Your task to perform on an android device: change the clock display to analog Image 0: 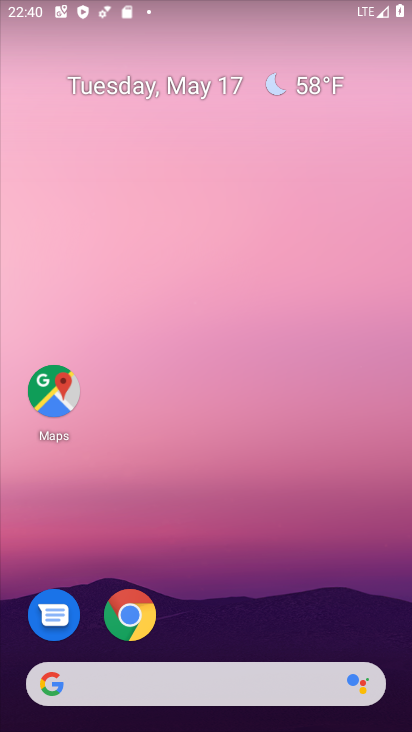
Step 0: drag from (249, 633) to (249, 216)
Your task to perform on an android device: change the clock display to analog Image 1: 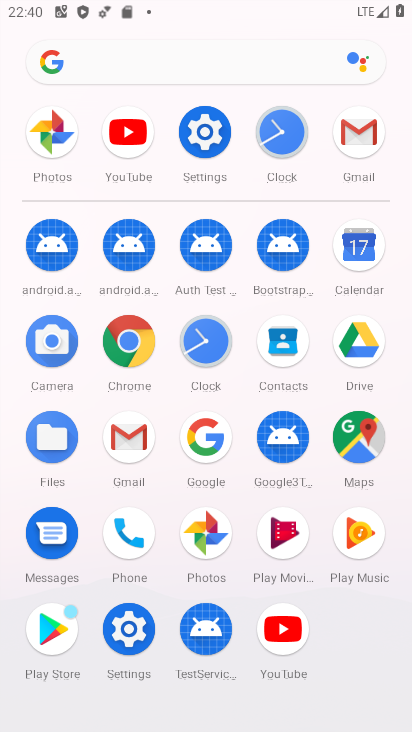
Step 1: click (267, 142)
Your task to perform on an android device: change the clock display to analog Image 2: 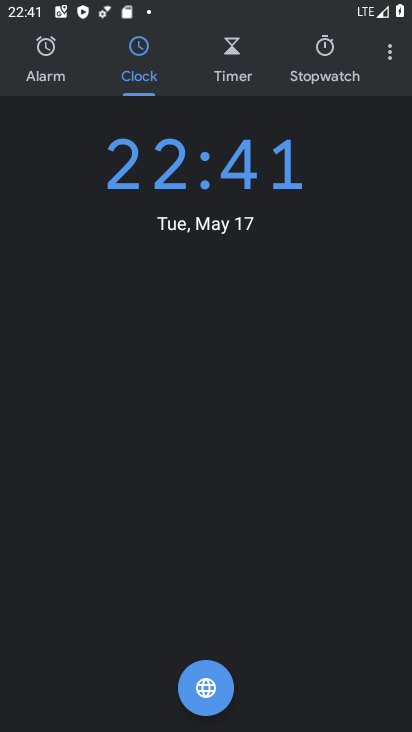
Step 2: click (384, 51)
Your task to perform on an android device: change the clock display to analog Image 3: 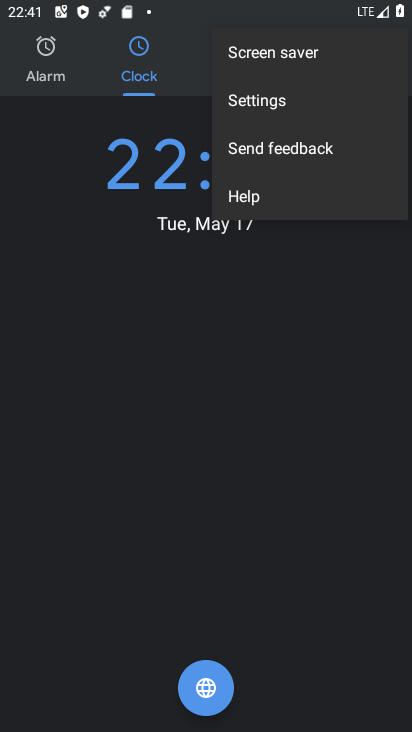
Step 3: click (261, 104)
Your task to perform on an android device: change the clock display to analog Image 4: 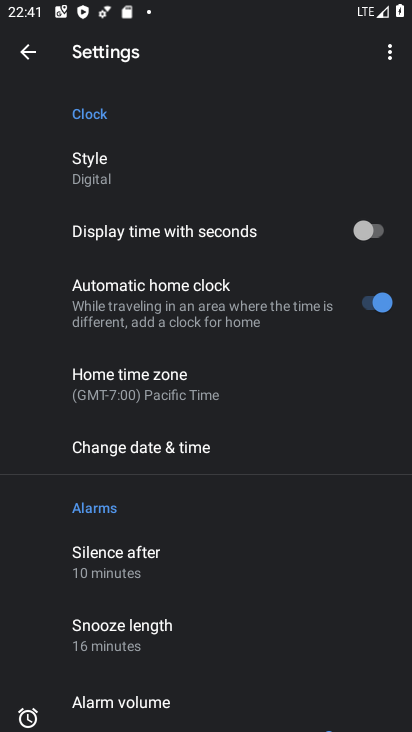
Step 4: click (76, 164)
Your task to perform on an android device: change the clock display to analog Image 5: 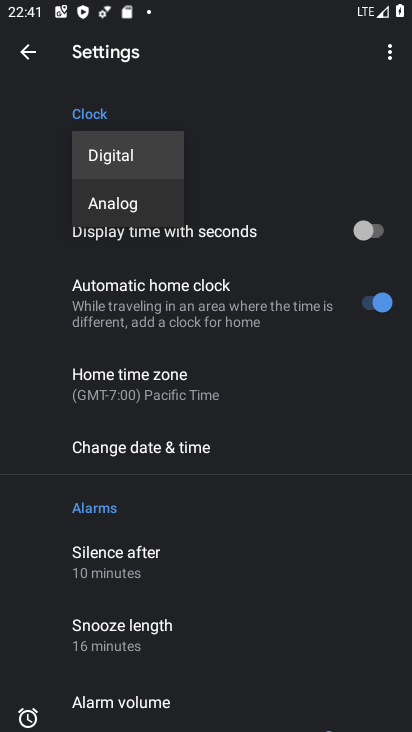
Step 5: click (95, 190)
Your task to perform on an android device: change the clock display to analog Image 6: 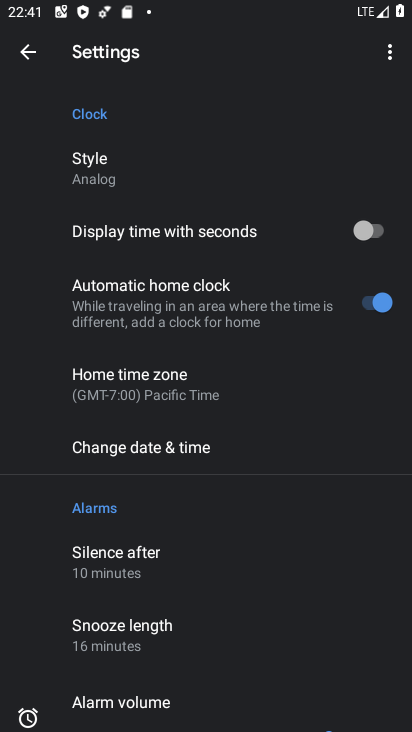
Step 6: task complete